Your task to perform on an android device: What's the weather going to be tomorrow? Image 0: 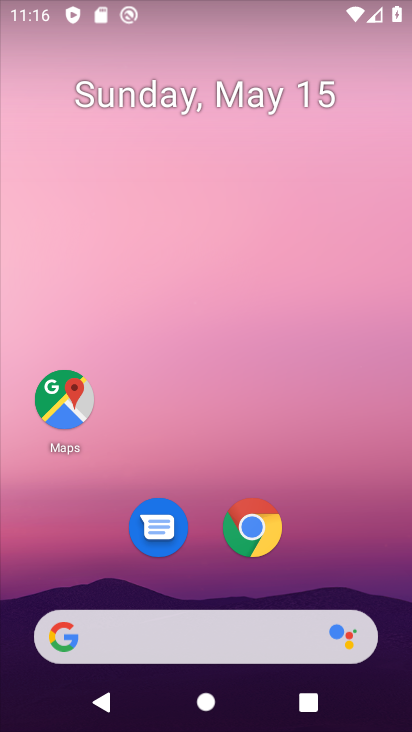
Step 0: click (234, 636)
Your task to perform on an android device: What's the weather going to be tomorrow? Image 1: 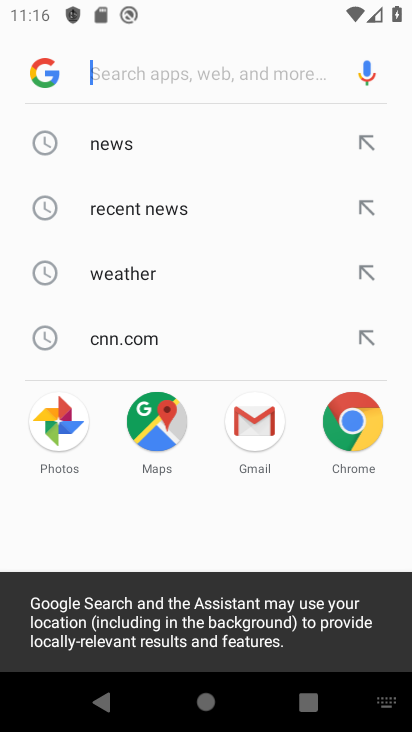
Step 1: click (205, 258)
Your task to perform on an android device: What's the weather going to be tomorrow? Image 2: 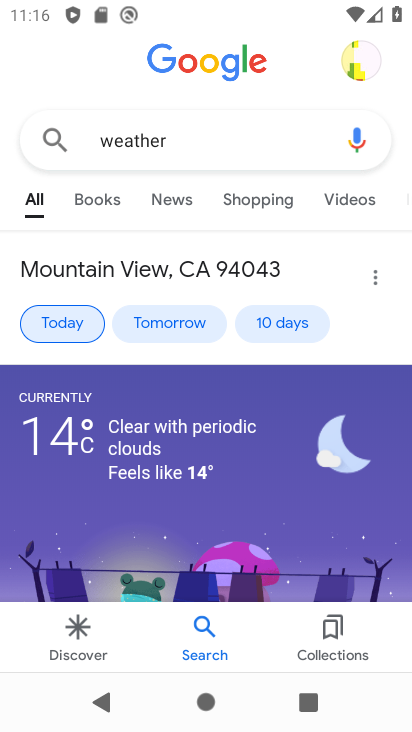
Step 2: click (184, 318)
Your task to perform on an android device: What's the weather going to be tomorrow? Image 3: 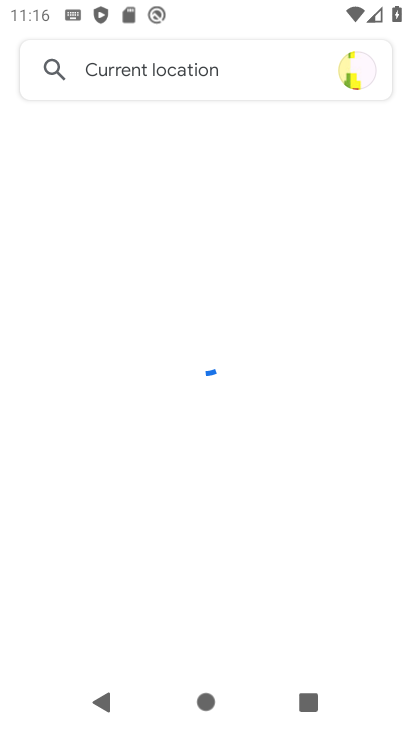
Step 3: task complete